Your task to perform on an android device: see sites visited before in the chrome app Image 0: 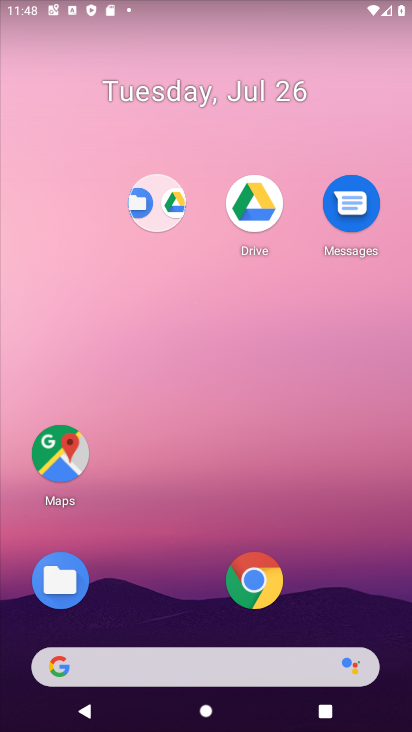
Step 0: click (250, 566)
Your task to perform on an android device: see sites visited before in the chrome app Image 1: 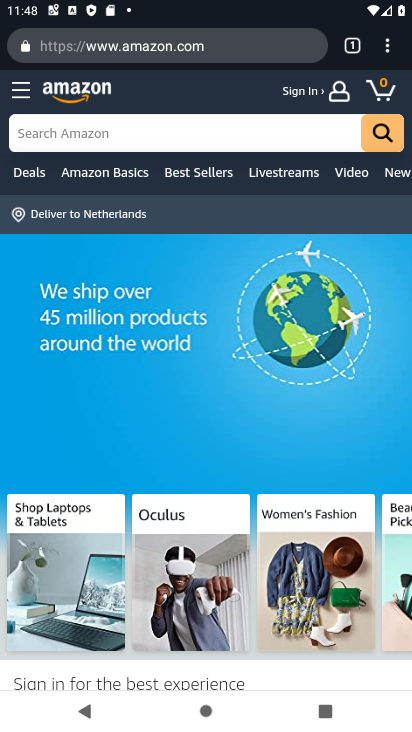
Step 1: click (394, 51)
Your task to perform on an android device: see sites visited before in the chrome app Image 2: 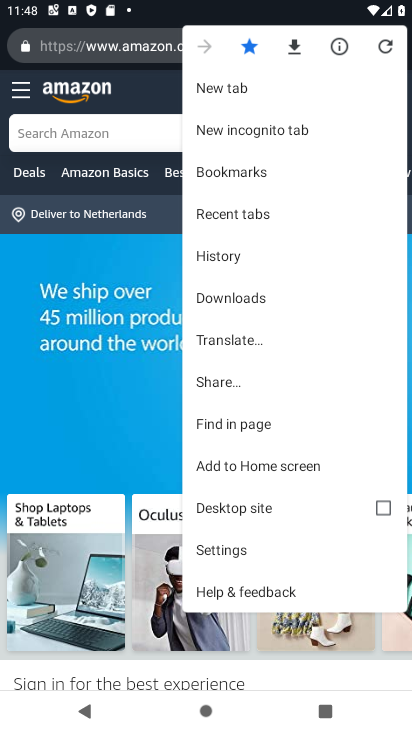
Step 2: click (299, 213)
Your task to perform on an android device: see sites visited before in the chrome app Image 3: 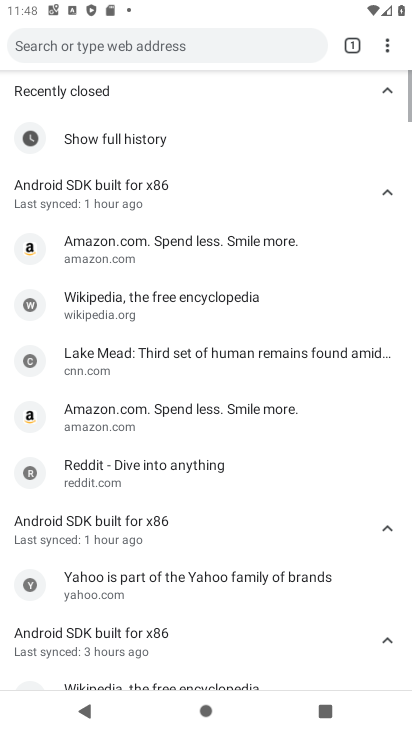
Step 3: task complete